Your task to perform on an android device: Search for Italian restaurants on Maps Image 0: 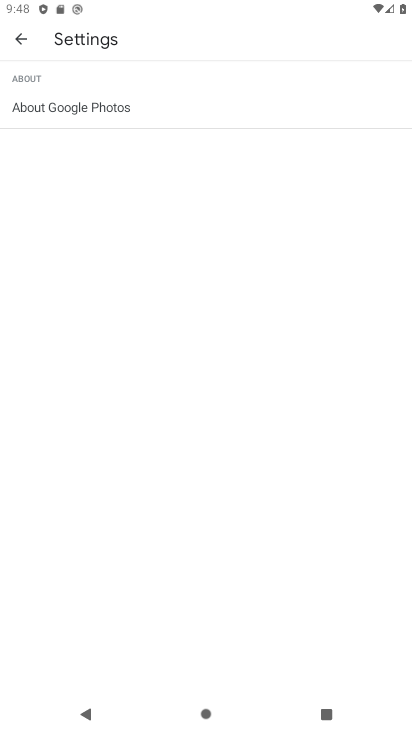
Step 0: press home button
Your task to perform on an android device: Search for Italian restaurants on Maps Image 1: 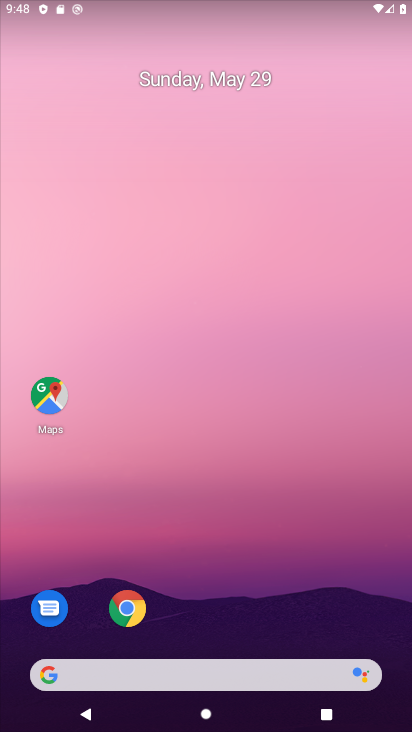
Step 1: click (61, 415)
Your task to perform on an android device: Search for Italian restaurants on Maps Image 2: 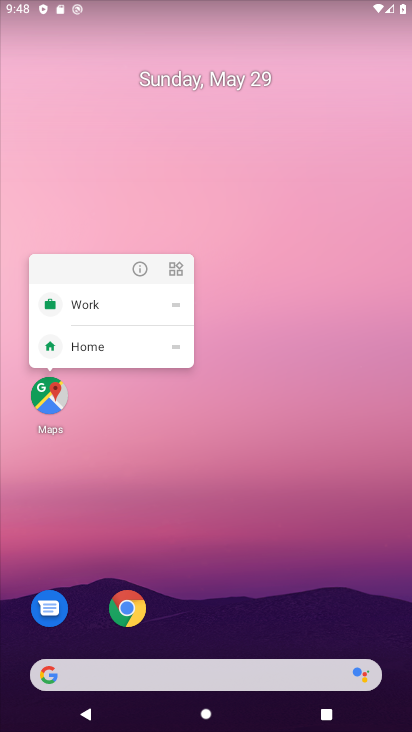
Step 2: click (43, 401)
Your task to perform on an android device: Search for Italian restaurants on Maps Image 3: 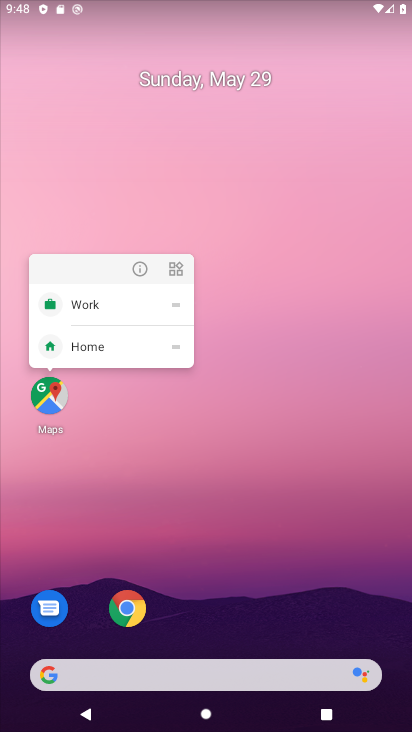
Step 3: click (44, 390)
Your task to perform on an android device: Search for Italian restaurants on Maps Image 4: 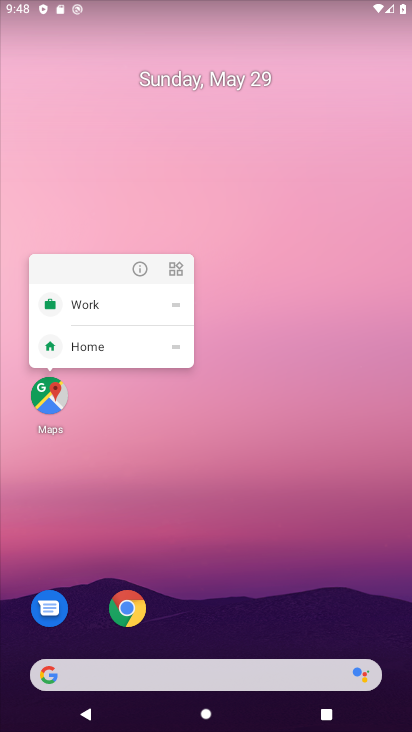
Step 4: click (53, 402)
Your task to perform on an android device: Search for Italian restaurants on Maps Image 5: 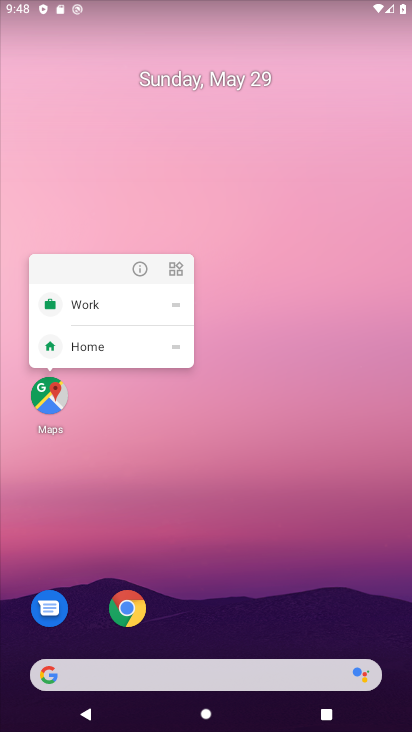
Step 5: click (67, 405)
Your task to perform on an android device: Search for Italian restaurants on Maps Image 6: 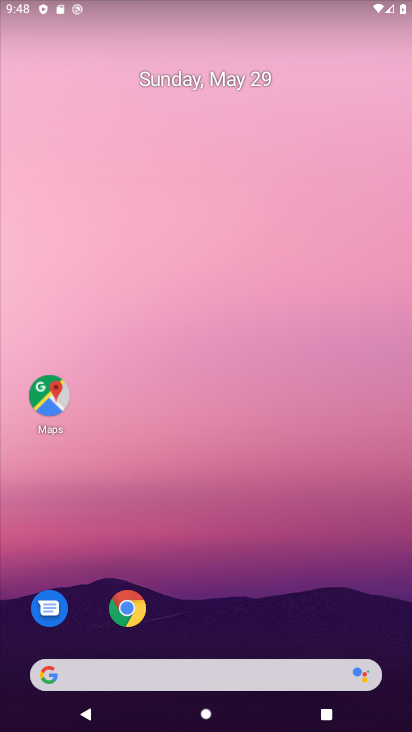
Step 6: click (57, 406)
Your task to perform on an android device: Search for Italian restaurants on Maps Image 7: 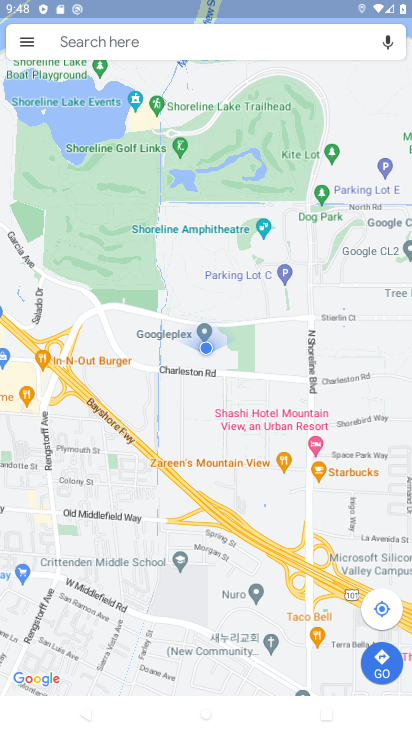
Step 7: click (124, 45)
Your task to perform on an android device: Search for Italian restaurants on Maps Image 8: 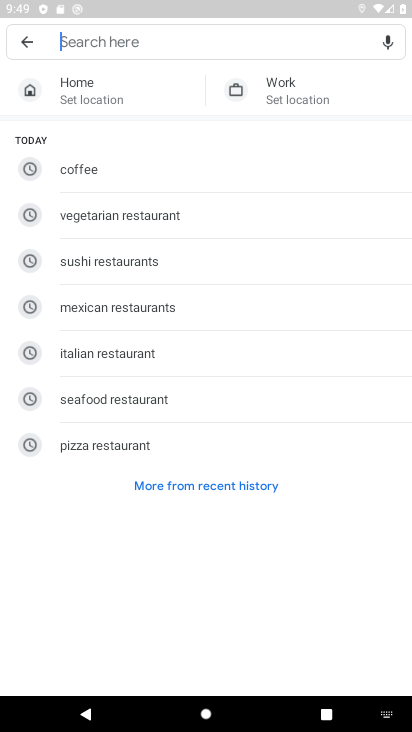
Step 8: type "Italian restaurants"
Your task to perform on an android device: Search for Italian restaurants on Maps Image 9: 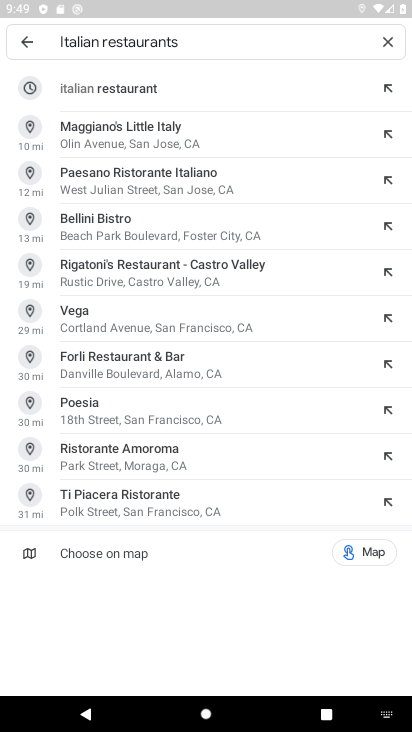
Step 9: click (190, 89)
Your task to perform on an android device: Search for Italian restaurants on Maps Image 10: 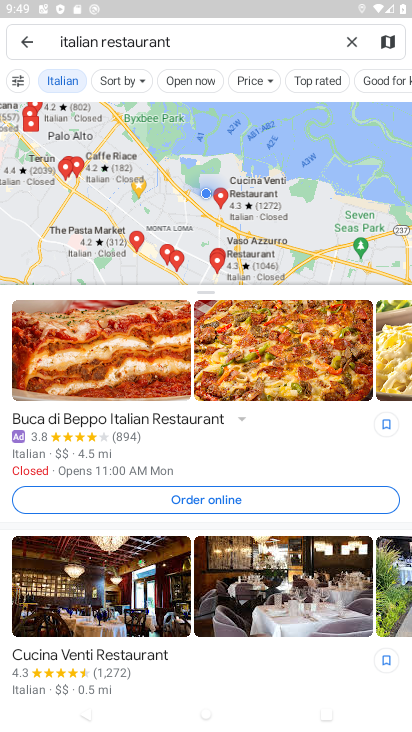
Step 10: task complete